Your task to perform on an android device: Search for vegetarian restaurants on Maps Image 0: 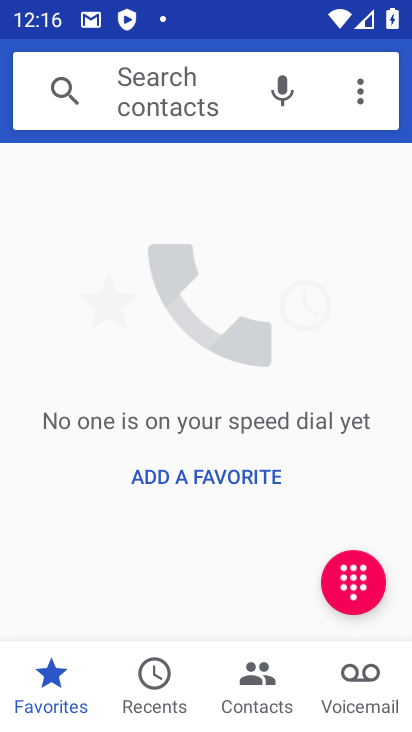
Step 0: press home button
Your task to perform on an android device: Search for vegetarian restaurants on Maps Image 1: 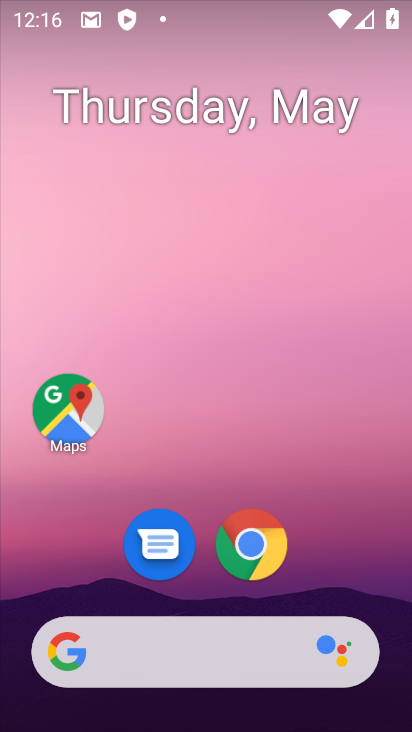
Step 1: click (49, 416)
Your task to perform on an android device: Search for vegetarian restaurants on Maps Image 2: 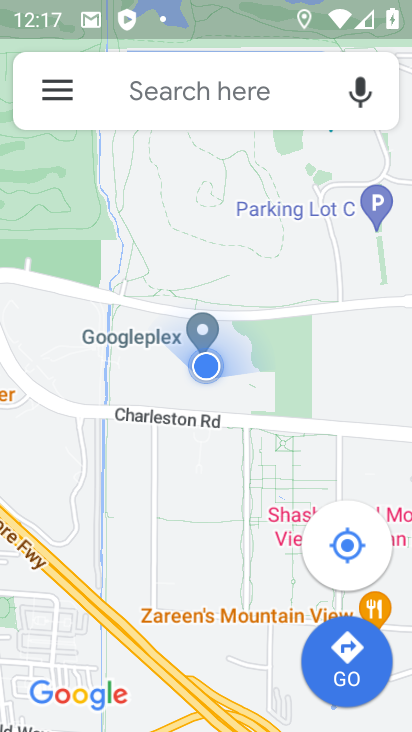
Step 2: click (264, 98)
Your task to perform on an android device: Search for vegetarian restaurants on Maps Image 3: 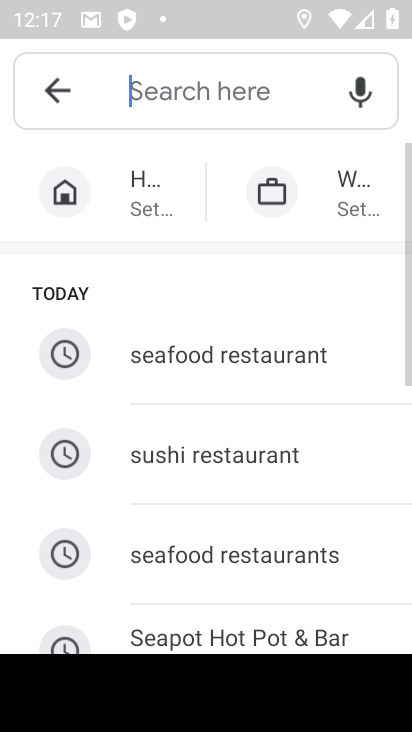
Step 3: drag from (273, 579) to (346, 115)
Your task to perform on an android device: Search for vegetarian restaurants on Maps Image 4: 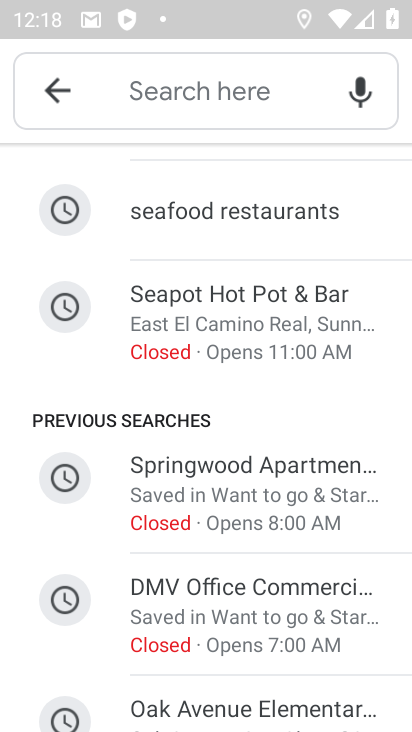
Step 4: click (244, 101)
Your task to perform on an android device: Search for vegetarian restaurants on Maps Image 5: 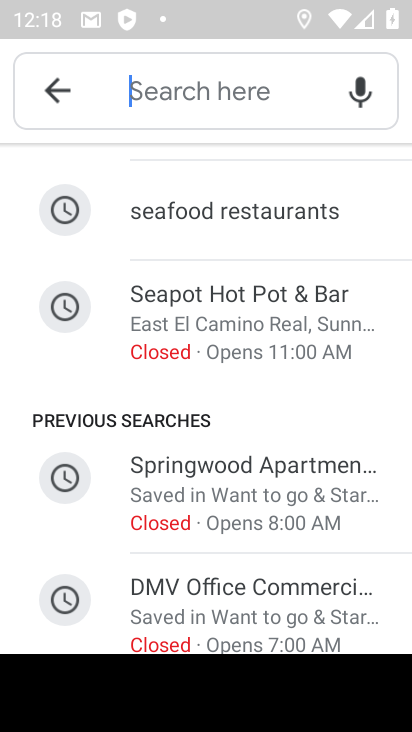
Step 5: type "vegetarian "
Your task to perform on an android device: Search for vegetarian restaurants on Maps Image 6: 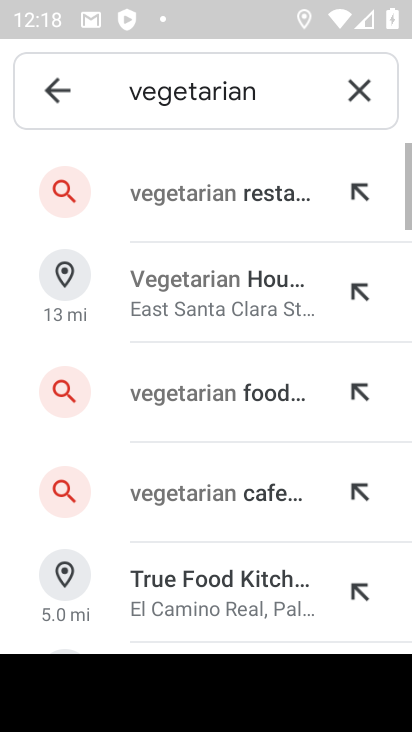
Step 6: click (311, 202)
Your task to perform on an android device: Search for vegetarian restaurants on Maps Image 7: 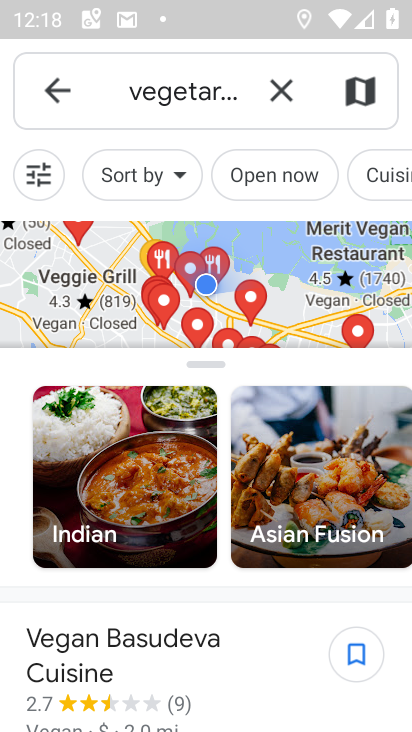
Step 7: task complete